Your task to perform on an android device: Add "usb-c to usb-a" to the cart on walmart, then select checkout. Image 0: 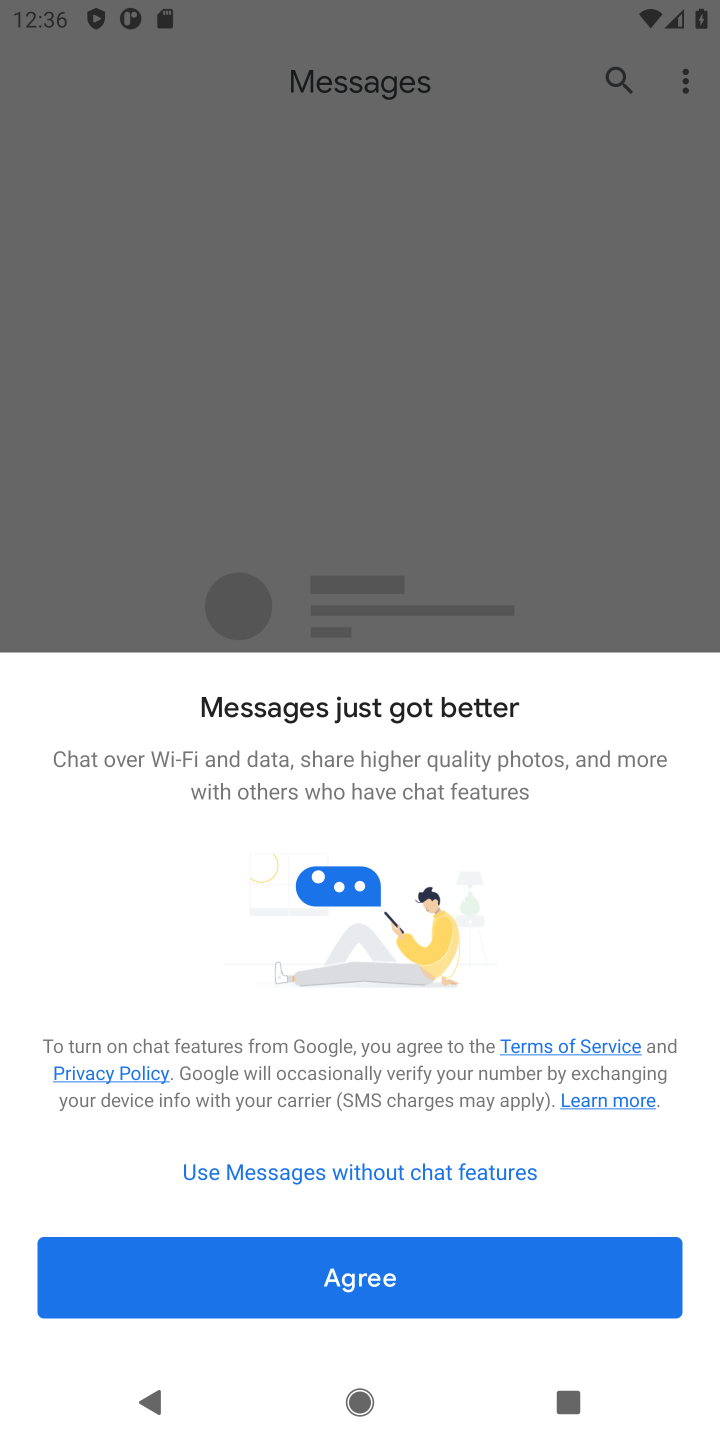
Step 0: press home button
Your task to perform on an android device: Add "usb-c to usb-a" to the cart on walmart, then select checkout. Image 1: 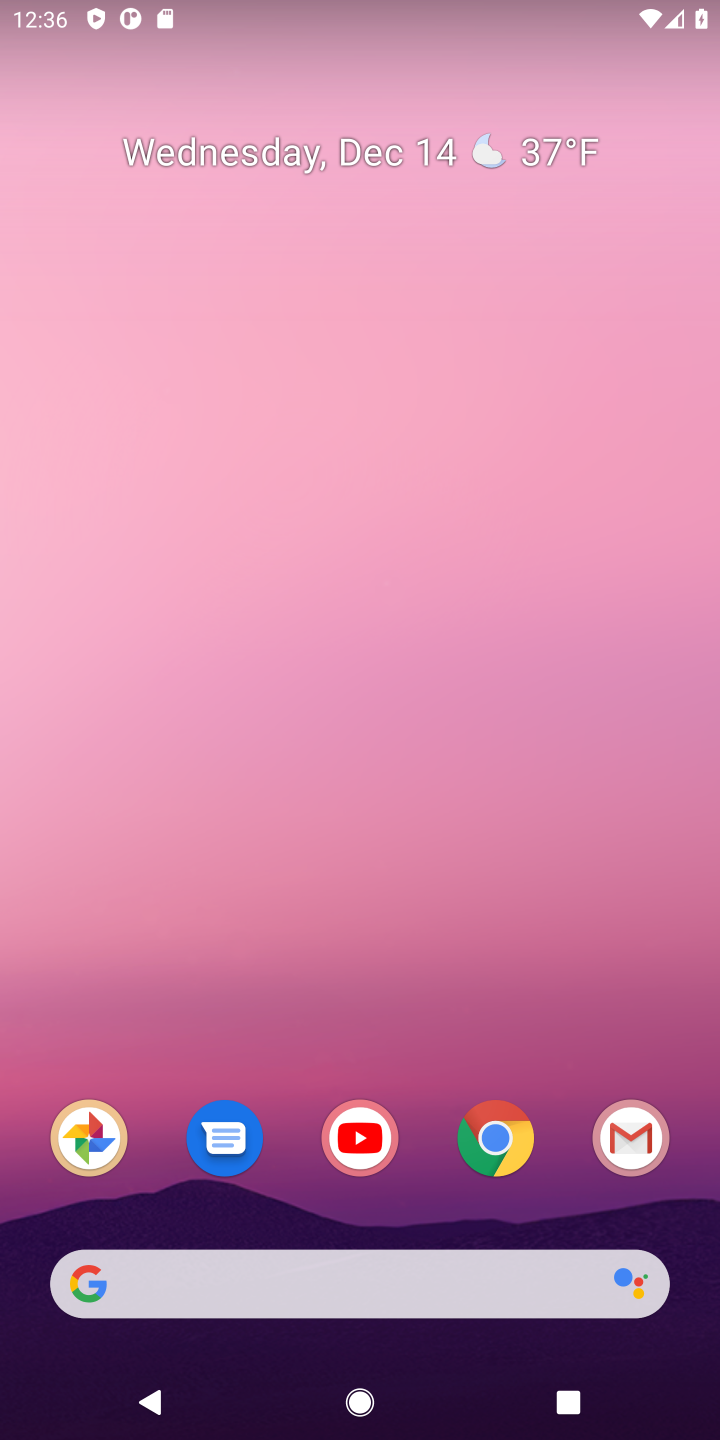
Step 1: click (488, 1135)
Your task to perform on an android device: Add "usb-c to usb-a" to the cart on walmart, then select checkout. Image 2: 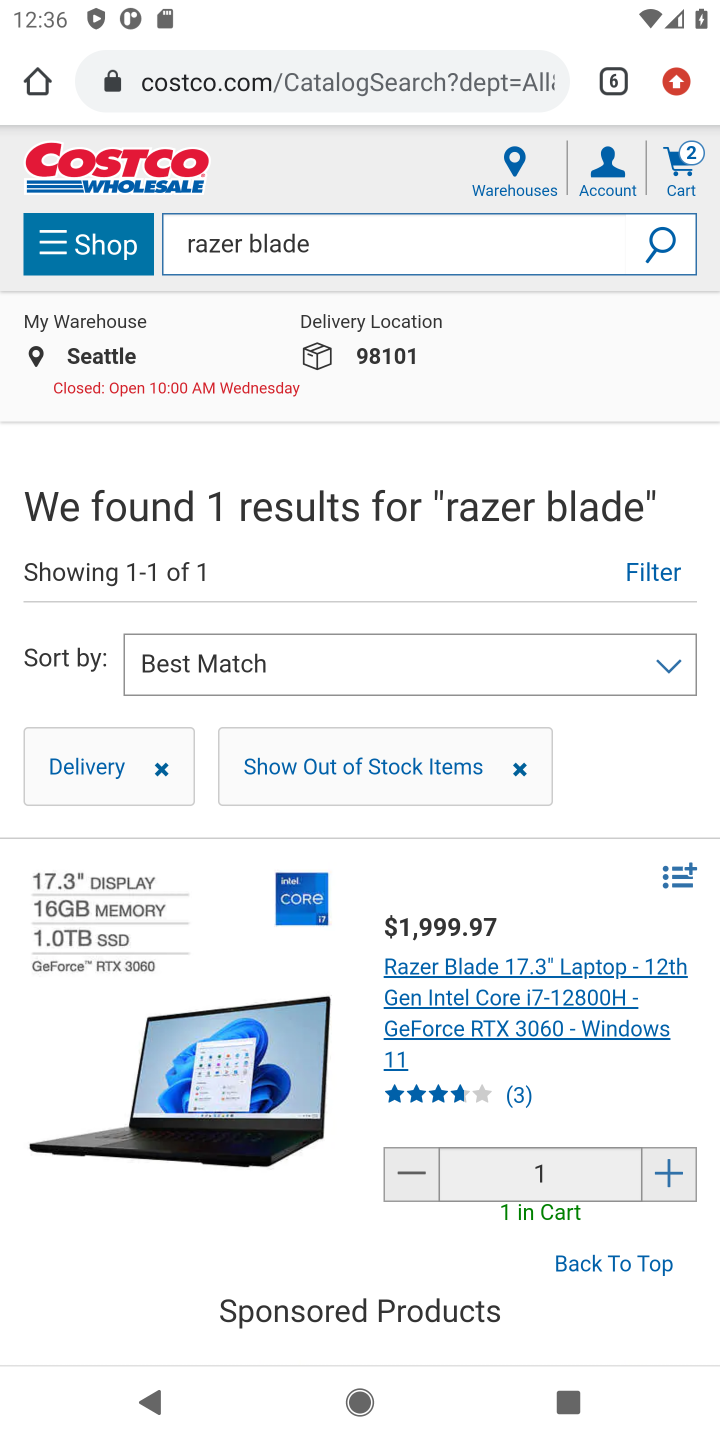
Step 2: click (604, 81)
Your task to perform on an android device: Add "usb-c to usb-a" to the cart on walmart, then select checkout. Image 3: 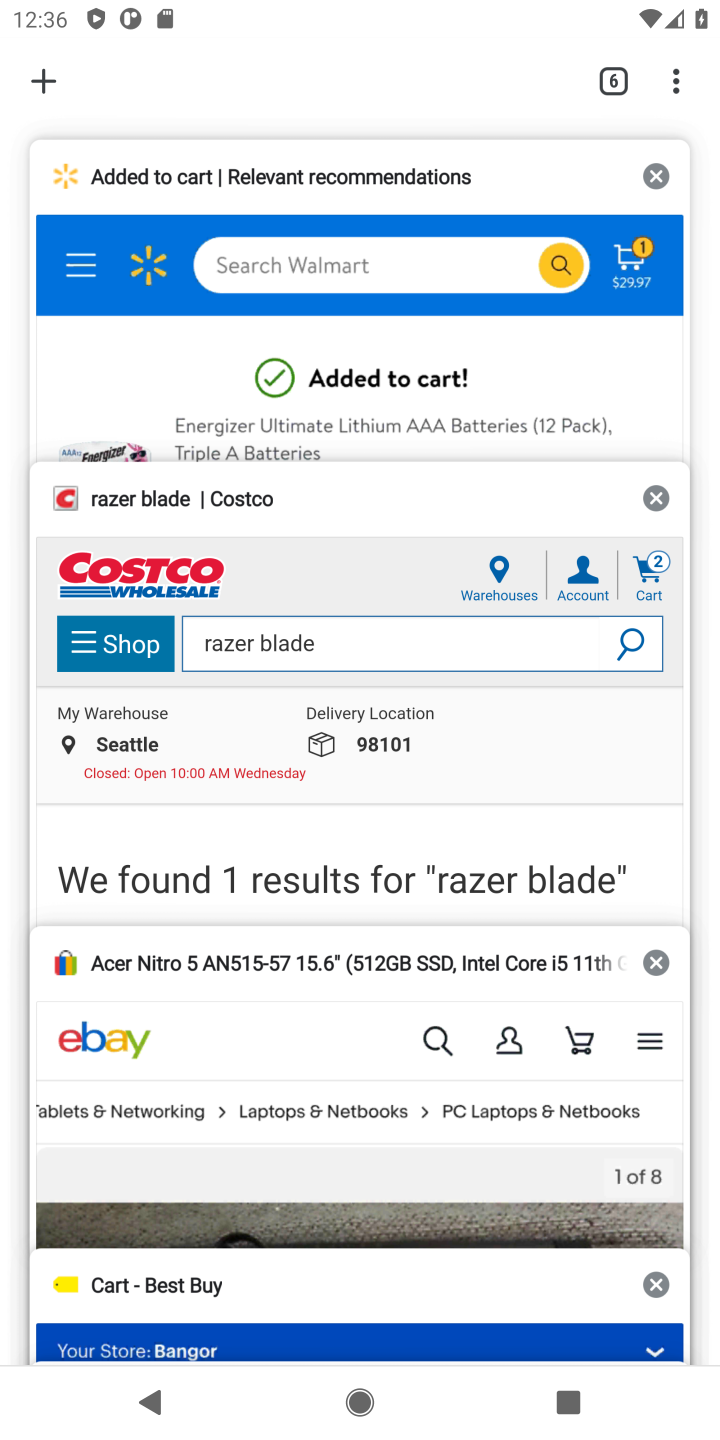
Step 3: click (458, 343)
Your task to perform on an android device: Add "usb-c to usb-a" to the cart on walmart, then select checkout. Image 4: 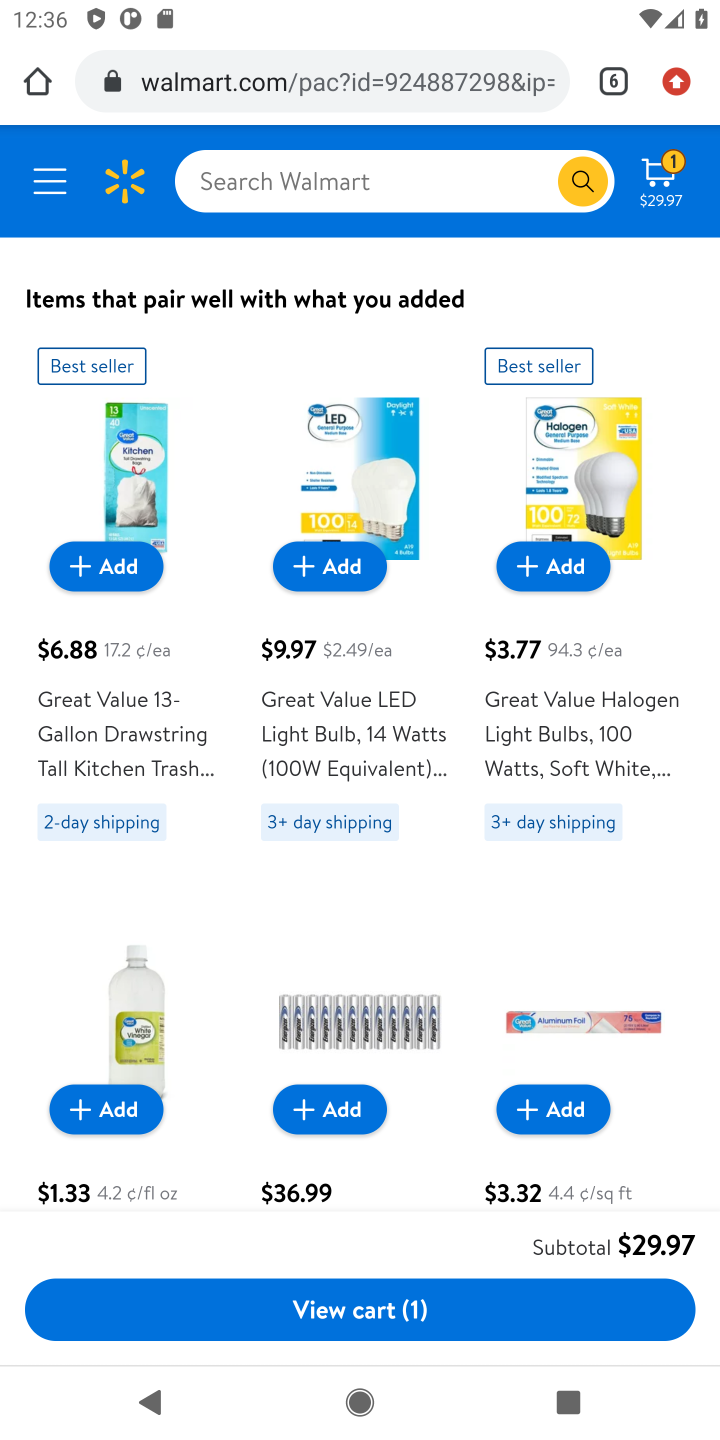
Step 4: click (282, 174)
Your task to perform on an android device: Add "usb-c to usb-a" to the cart on walmart, then select checkout. Image 5: 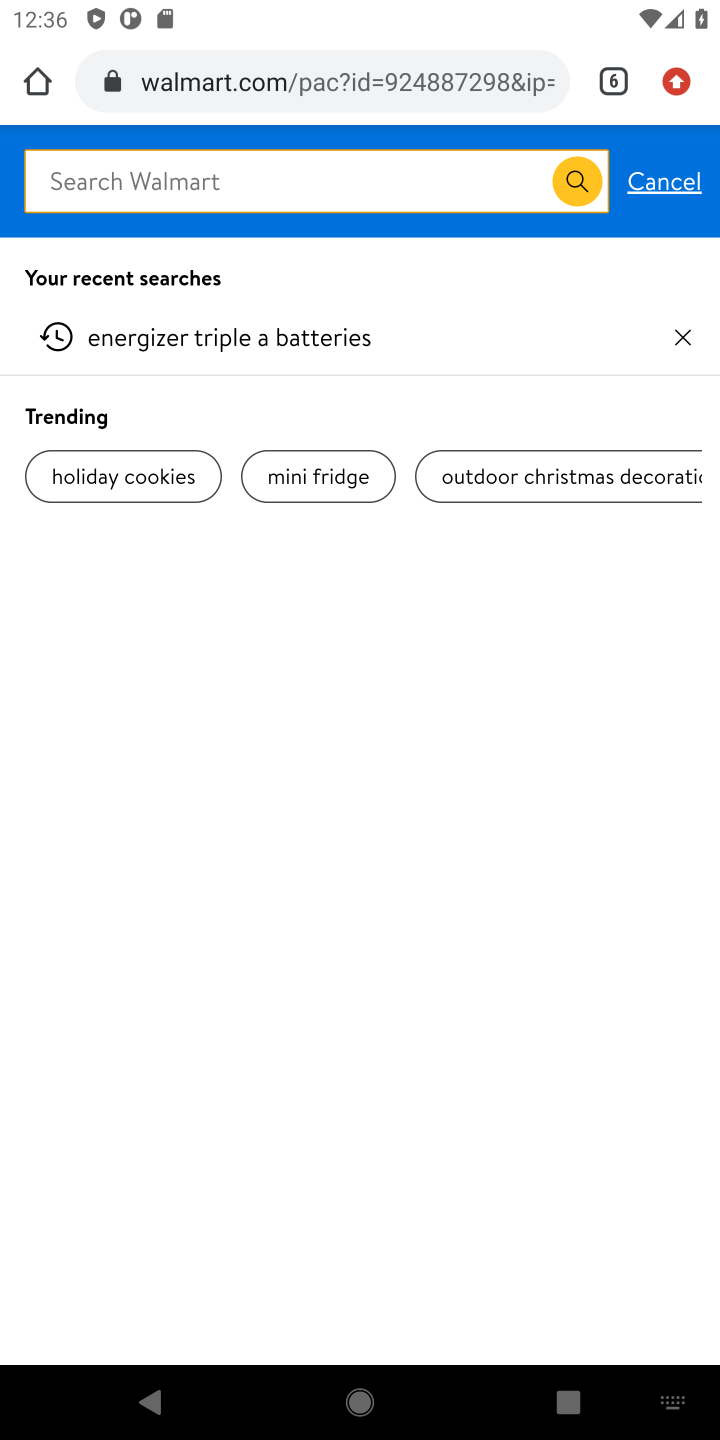
Step 5: type "usb-c to usb-a"
Your task to perform on an android device: Add "usb-c to usb-a" to the cart on walmart, then select checkout. Image 6: 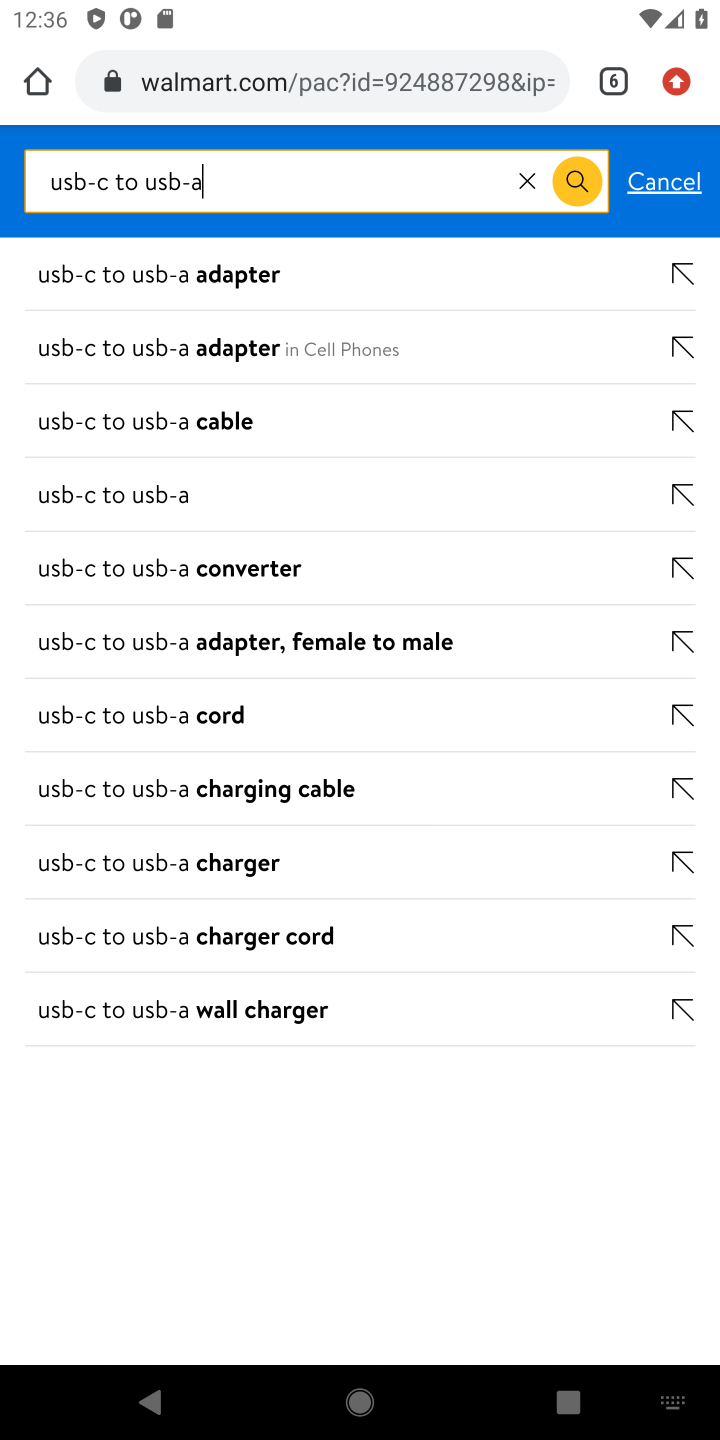
Step 6: click (176, 336)
Your task to perform on an android device: Add "usb-c to usb-a" to the cart on walmart, then select checkout. Image 7: 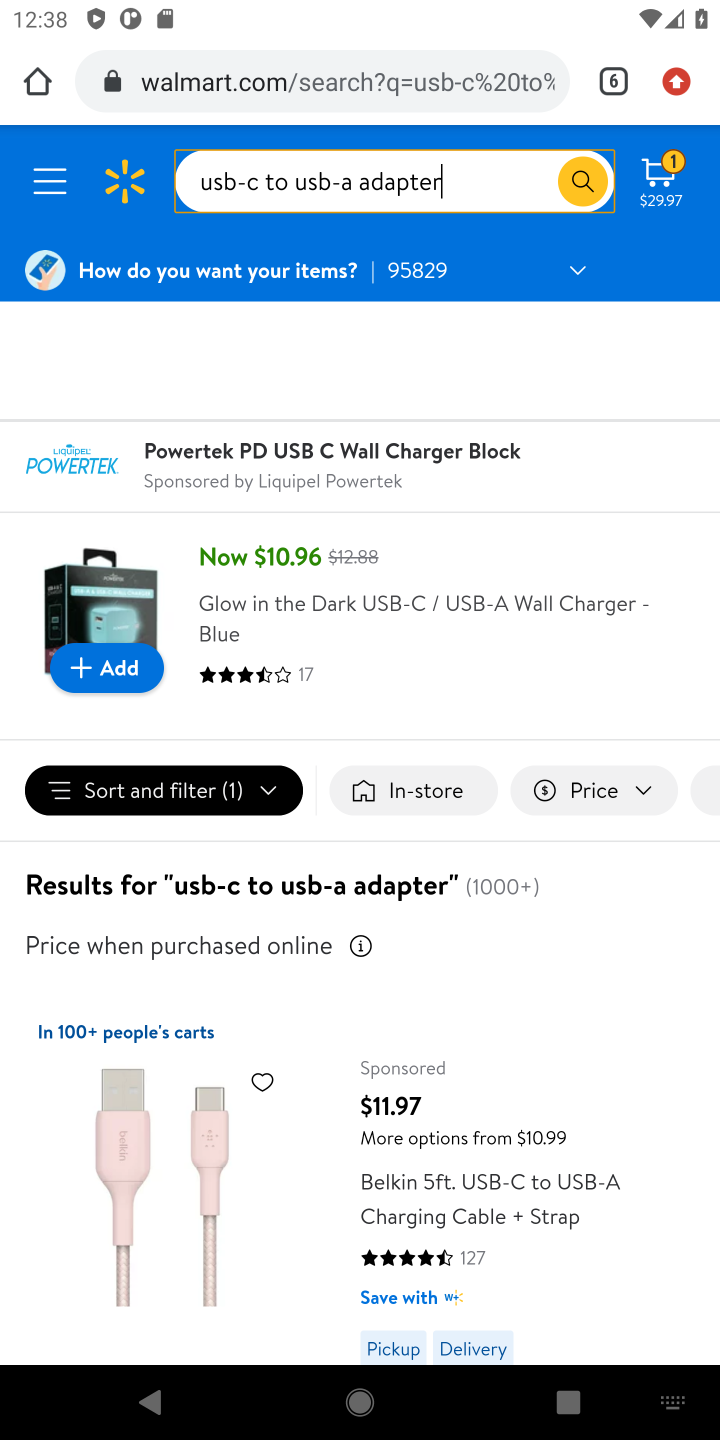
Step 7: drag from (590, 1035) to (555, 610)
Your task to perform on an android device: Add "usb-c to usb-a" to the cart on walmart, then select checkout. Image 8: 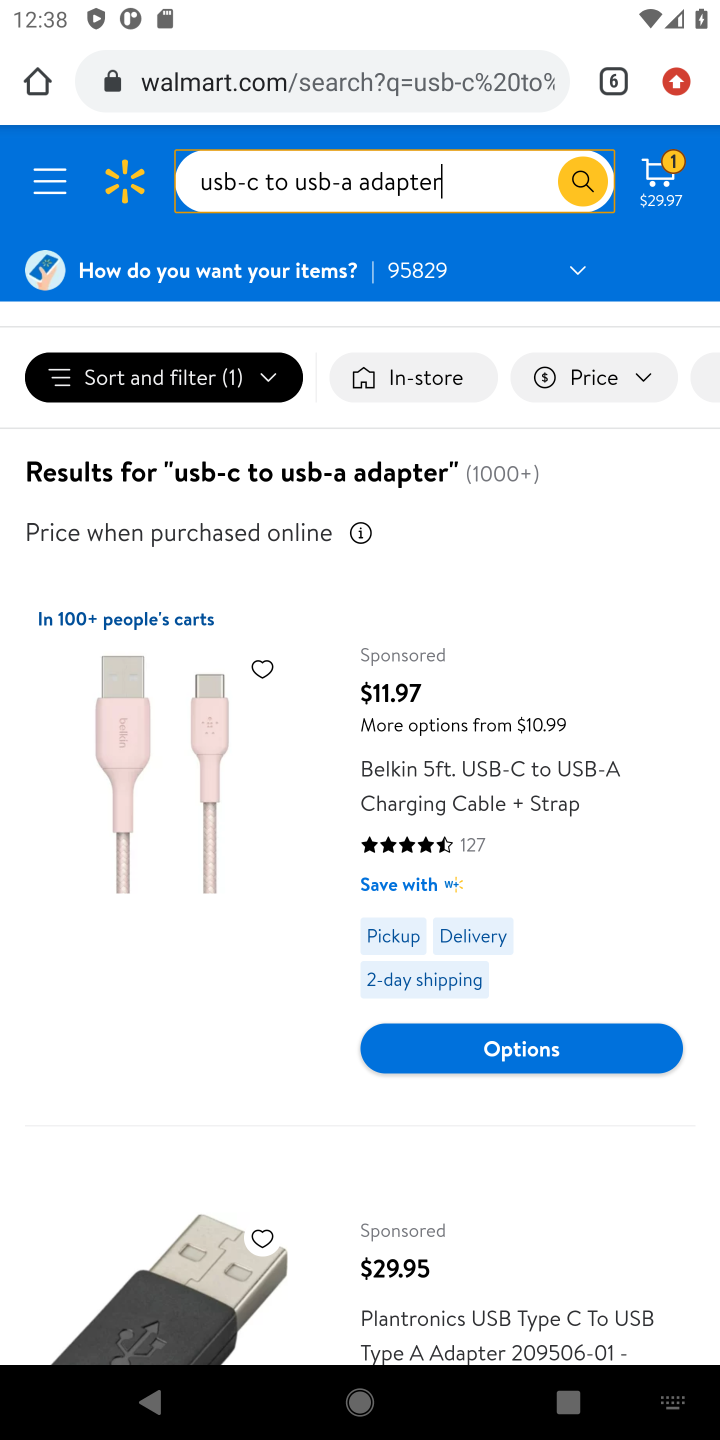
Step 8: click (499, 787)
Your task to perform on an android device: Add "usb-c to usb-a" to the cart on walmart, then select checkout. Image 9: 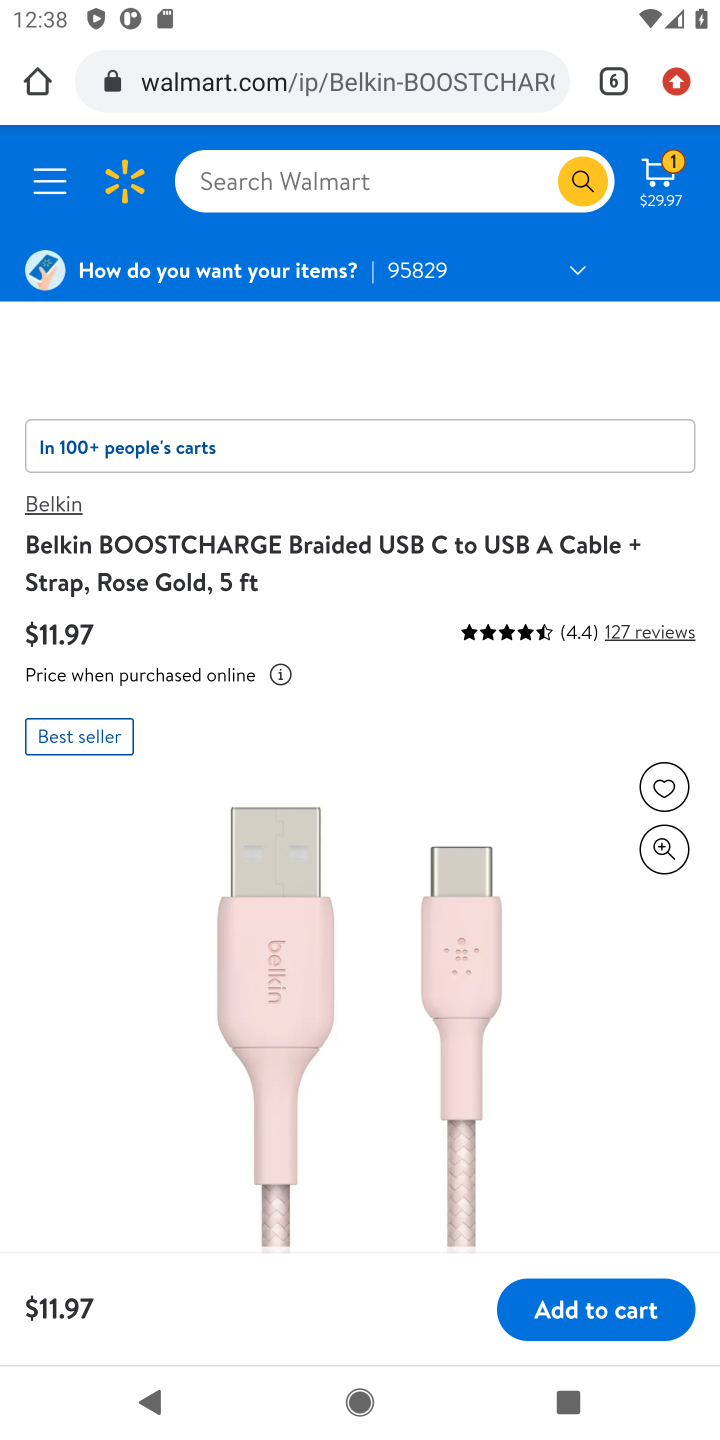
Step 9: click (617, 1311)
Your task to perform on an android device: Add "usb-c to usb-a" to the cart on walmart, then select checkout. Image 10: 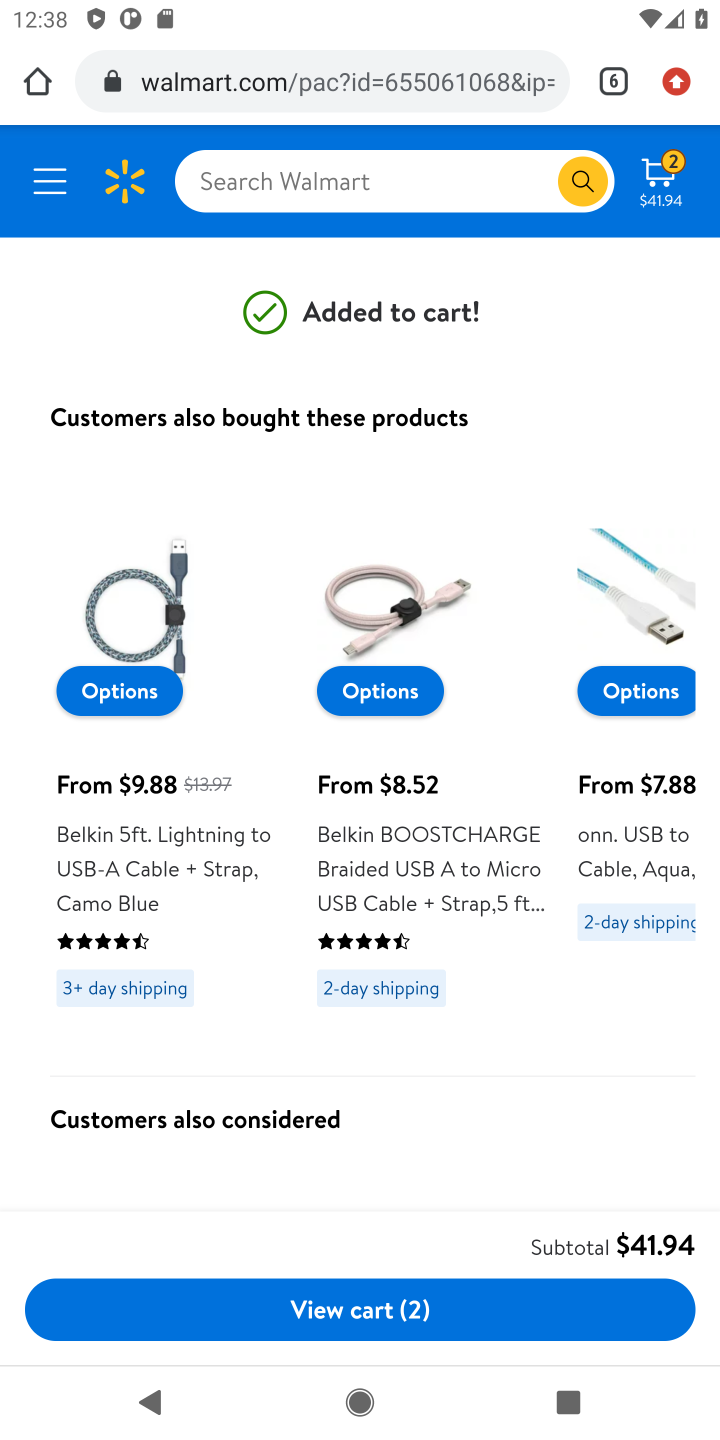
Step 10: task complete